Your task to perform on an android device: Open calendar and show me the fourth week of next month Image 0: 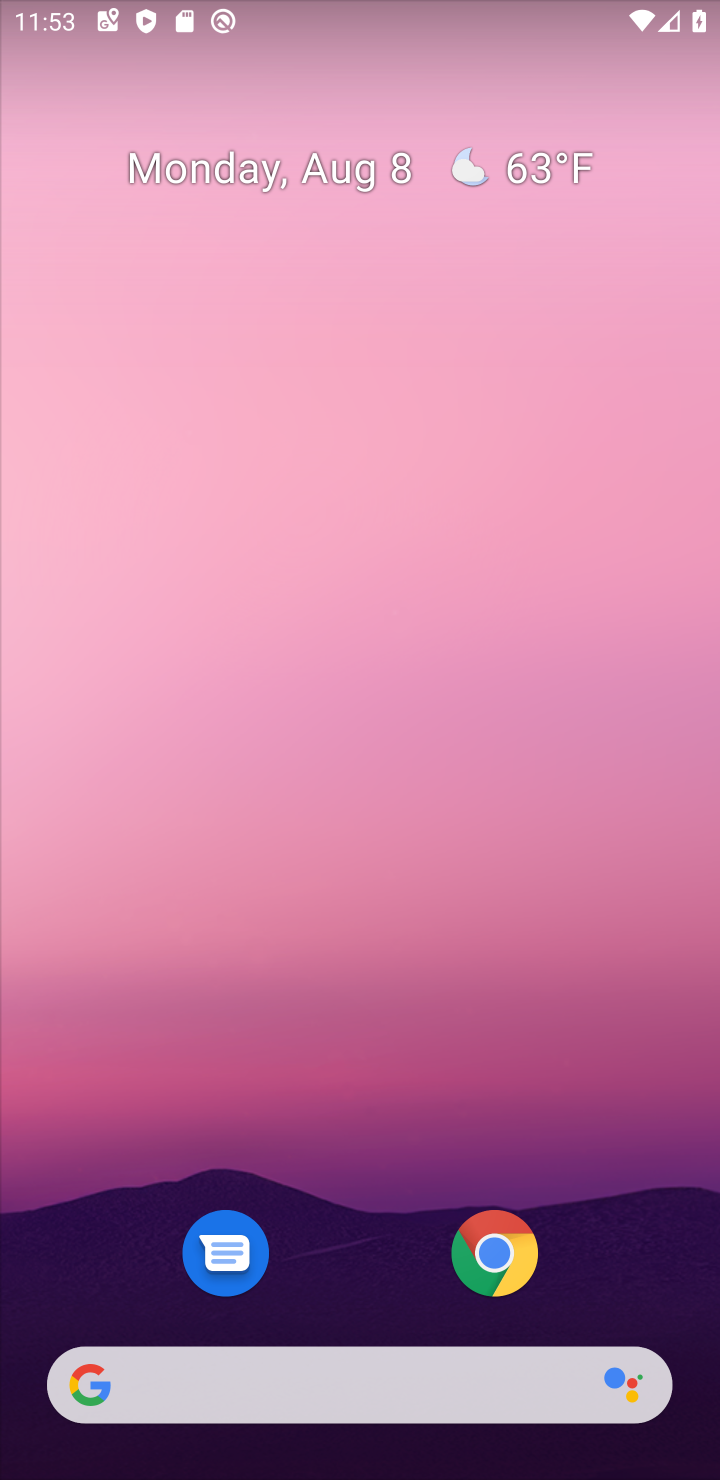
Step 0: drag from (525, 634) to (409, 88)
Your task to perform on an android device: Open calendar and show me the fourth week of next month Image 1: 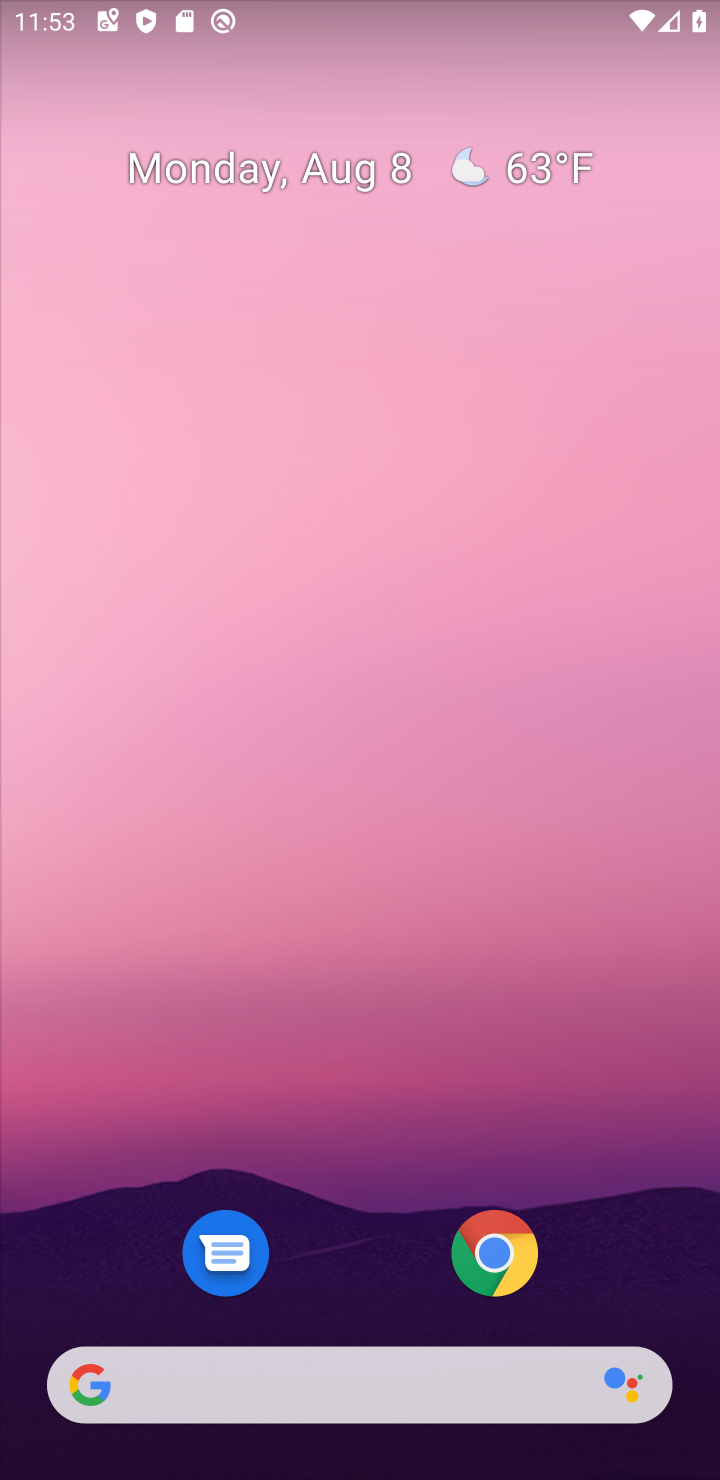
Step 1: drag from (684, 1223) to (382, 19)
Your task to perform on an android device: Open calendar and show me the fourth week of next month Image 2: 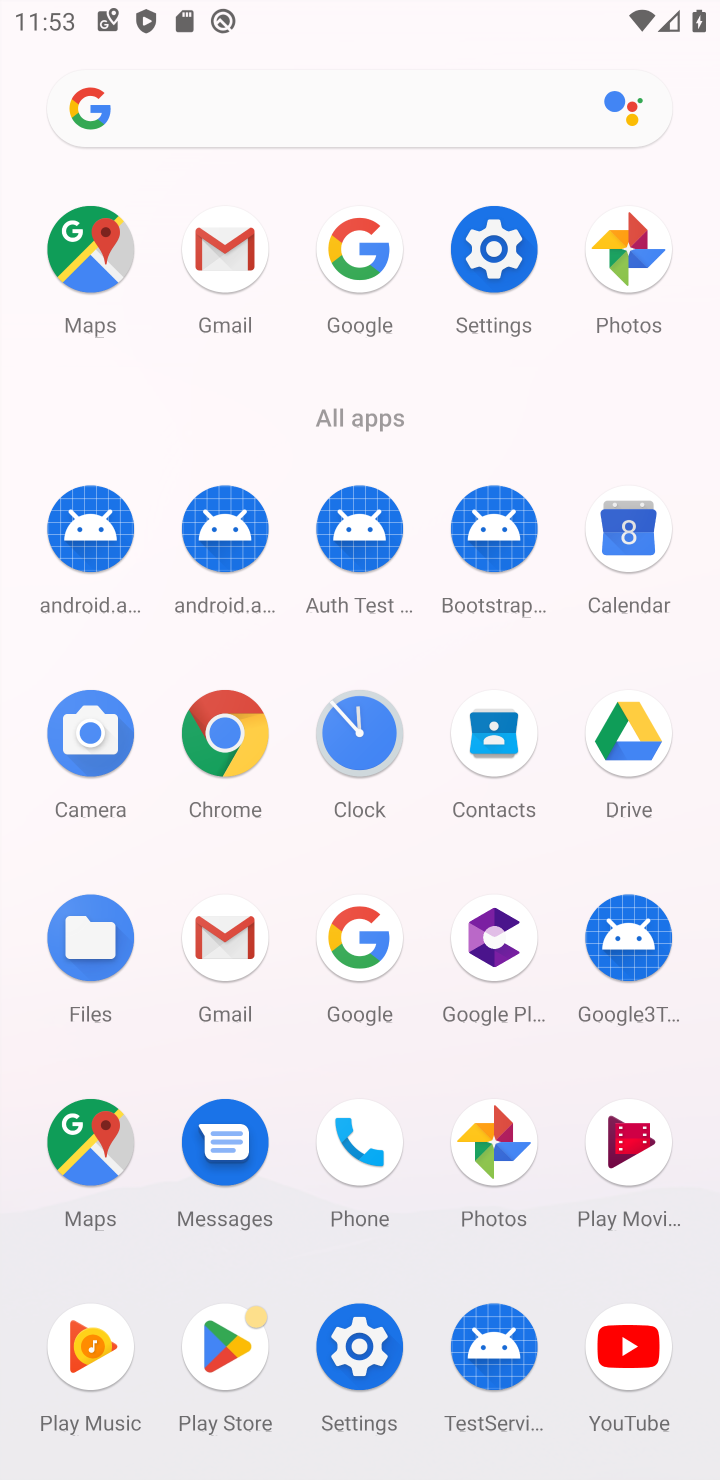
Step 2: click (628, 543)
Your task to perform on an android device: Open calendar and show me the fourth week of next month Image 3: 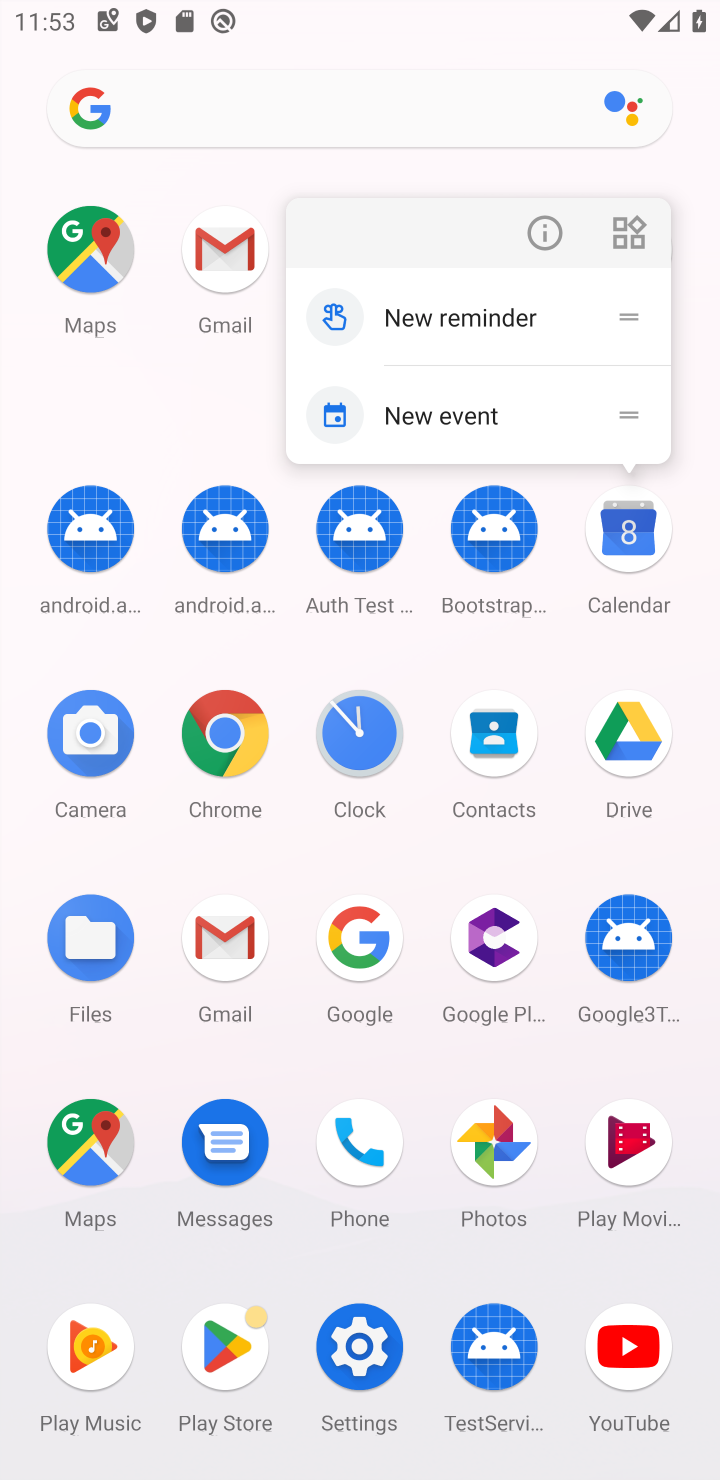
Step 3: click (638, 552)
Your task to perform on an android device: Open calendar and show me the fourth week of next month Image 4: 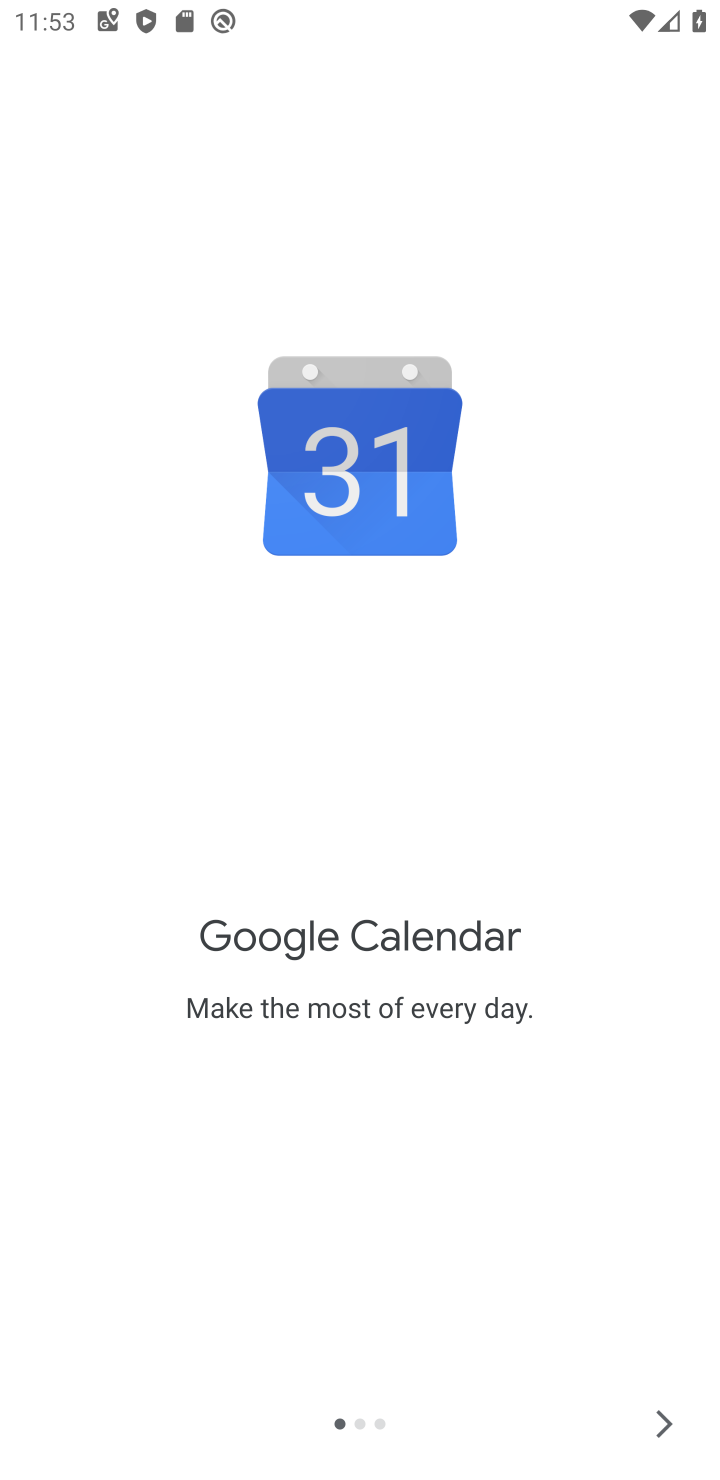
Step 4: click (668, 1414)
Your task to perform on an android device: Open calendar and show me the fourth week of next month Image 5: 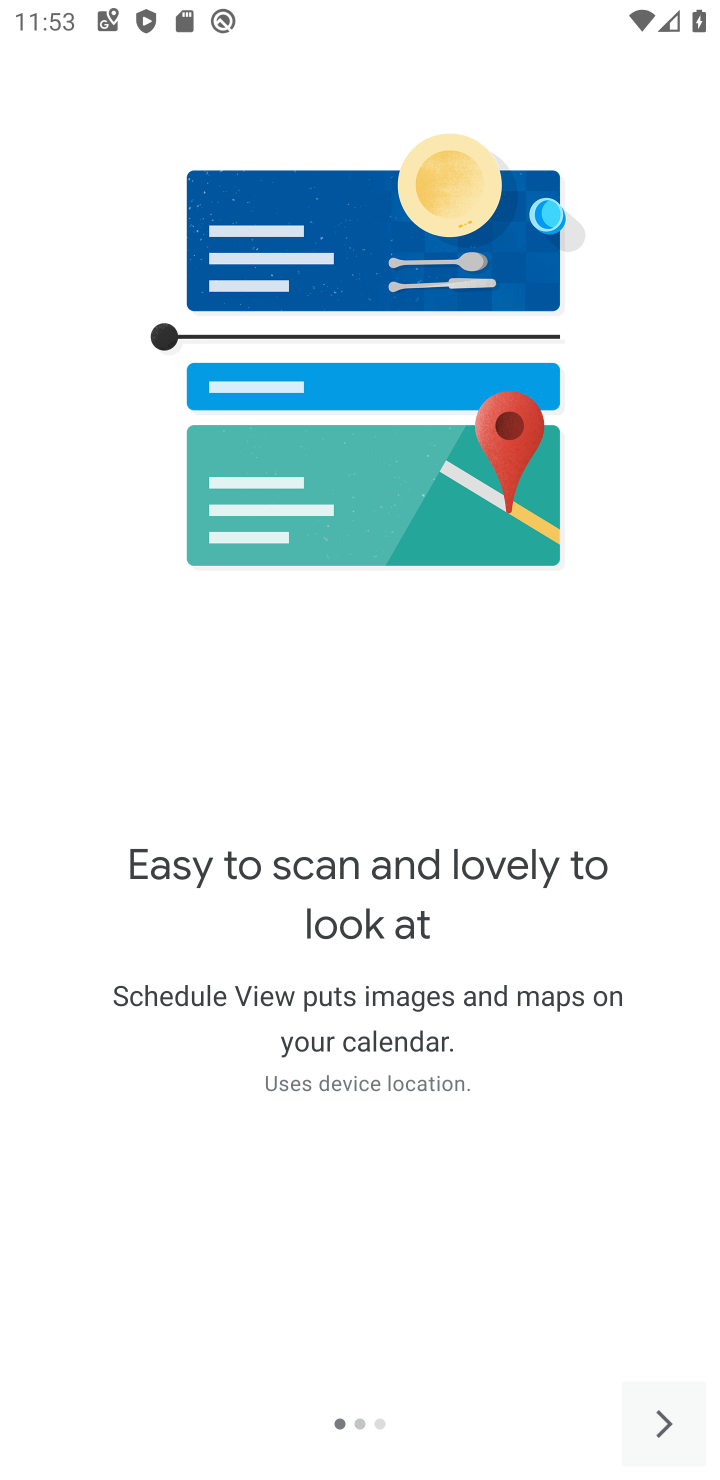
Step 5: click (668, 1414)
Your task to perform on an android device: Open calendar and show me the fourth week of next month Image 6: 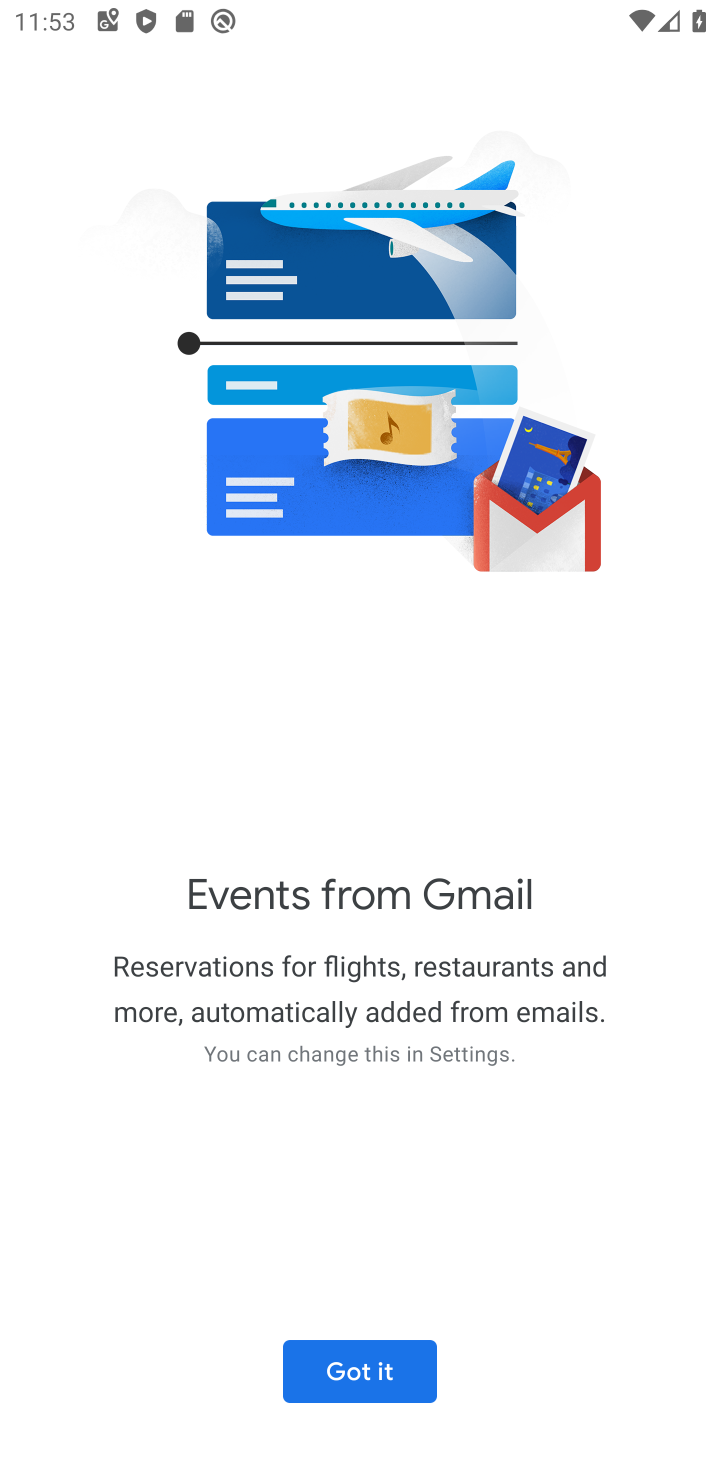
Step 6: click (347, 1396)
Your task to perform on an android device: Open calendar and show me the fourth week of next month Image 7: 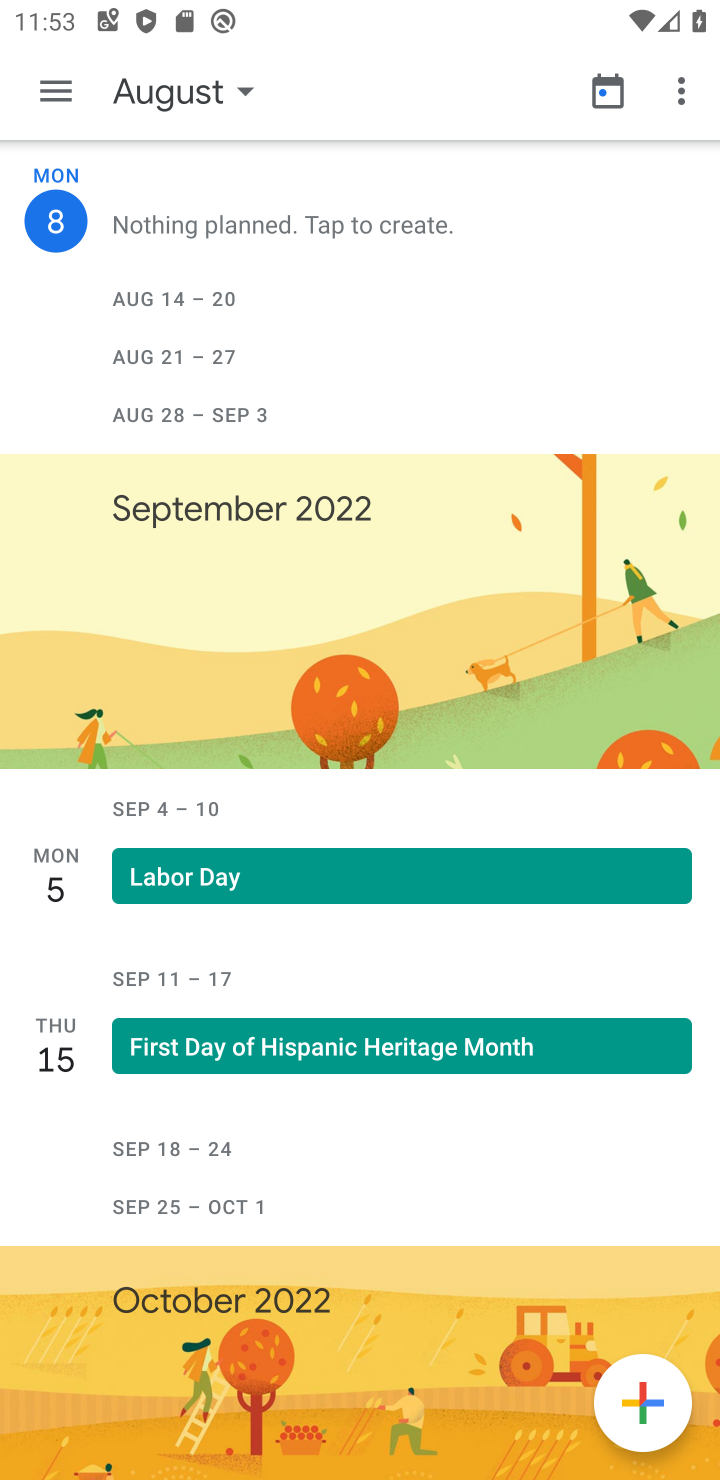
Step 7: click (165, 101)
Your task to perform on an android device: Open calendar and show me the fourth week of next month Image 8: 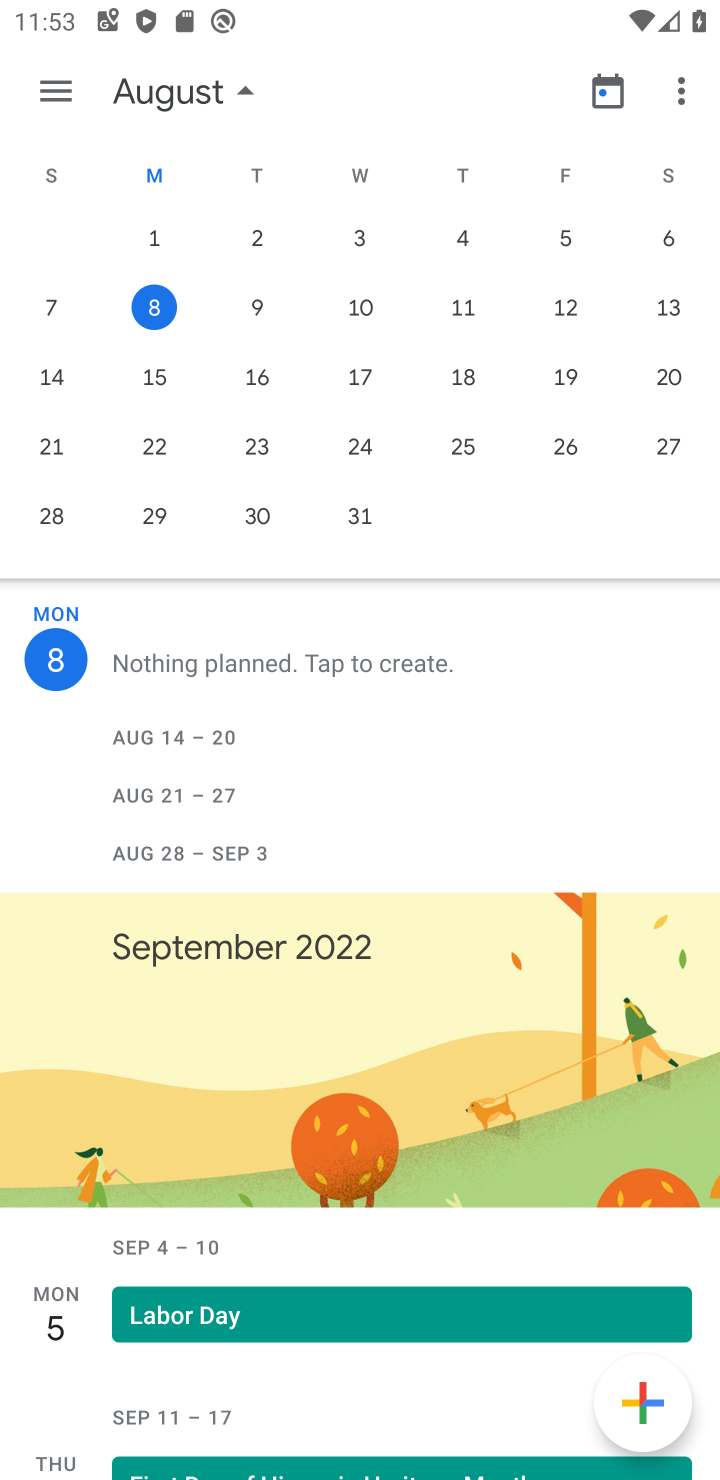
Step 8: drag from (663, 420) to (16, 350)
Your task to perform on an android device: Open calendar and show me the fourth week of next month Image 9: 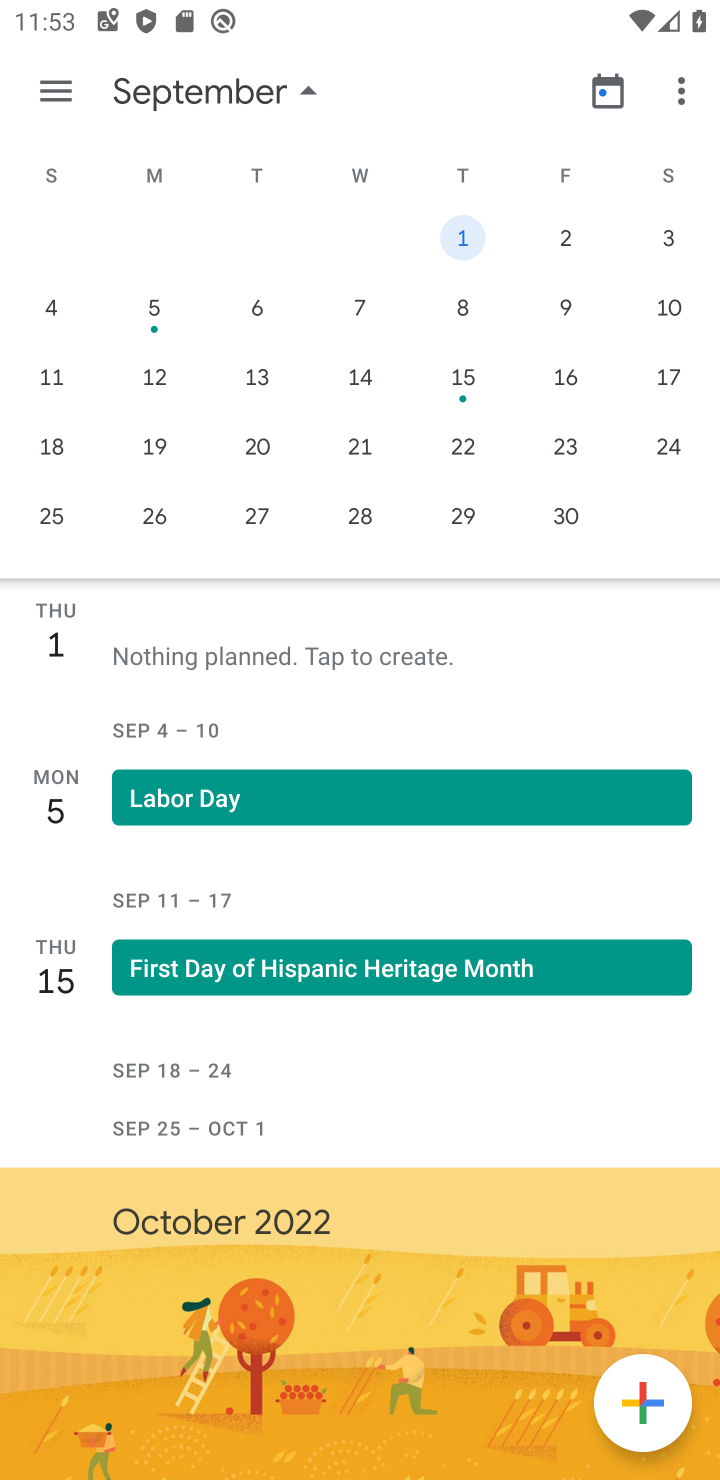
Step 9: click (48, 499)
Your task to perform on an android device: Open calendar and show me the fourth week of next month Image 10: 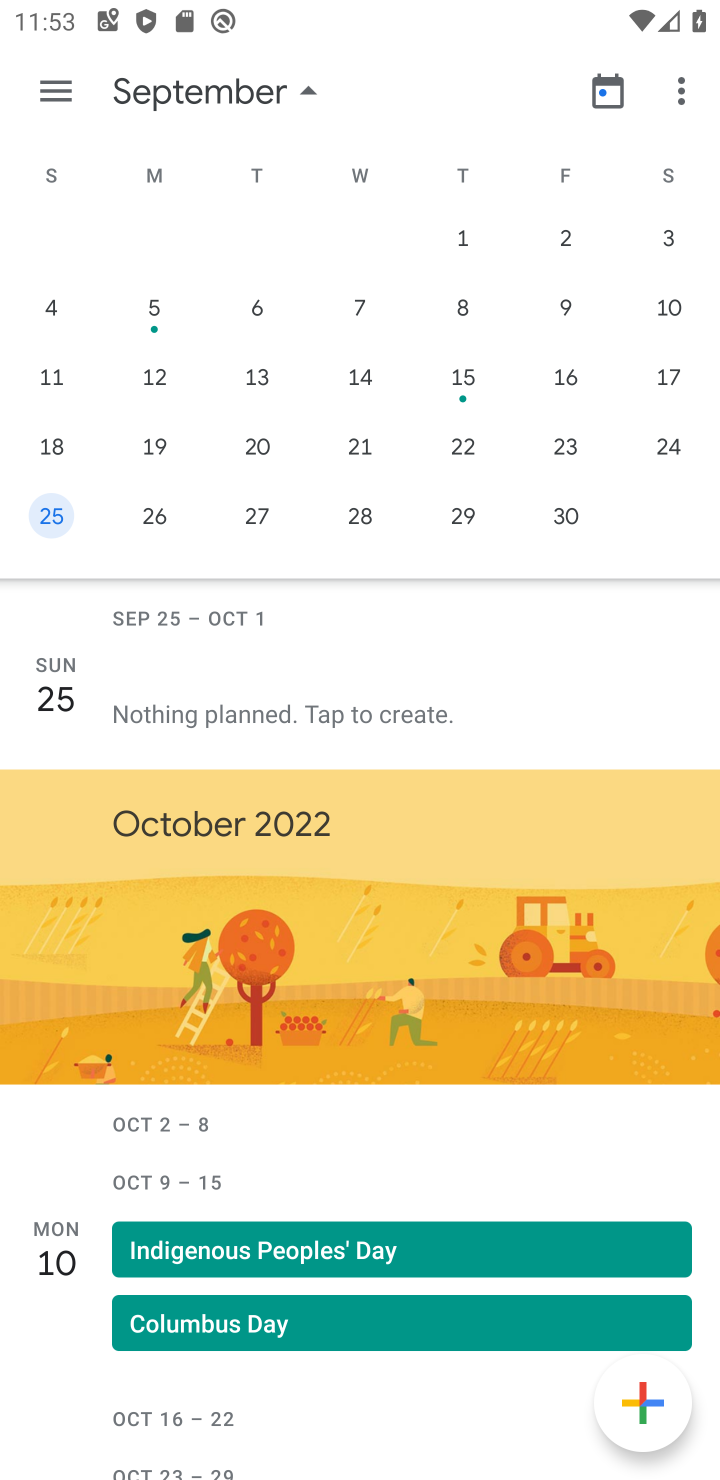
Step 10: task complete